Your task to perform on an android device: Open display settings Image 0: 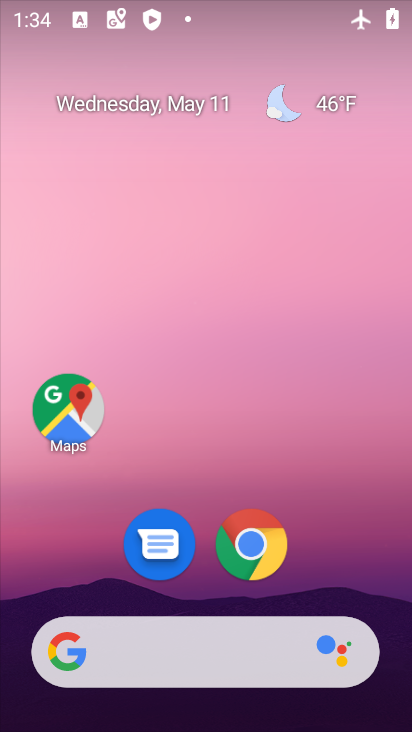
Step 0: drag from (395, 632) to (259, 104)
Your task to perform on an android device: Open display settings Image 1: 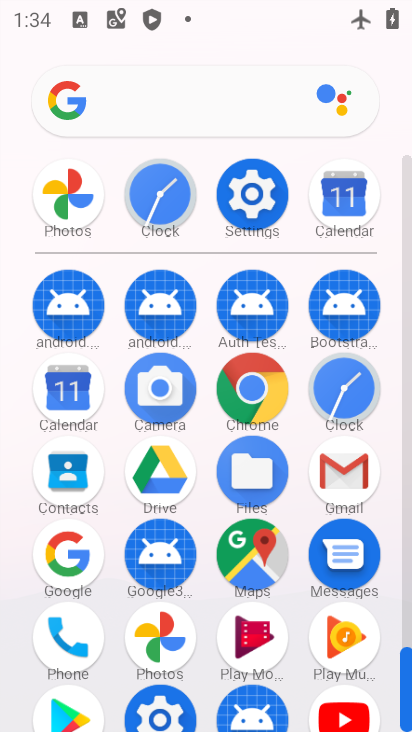
Step 1: click (405, 630)
Your task to perform on an android device: Open display settings Image 2: 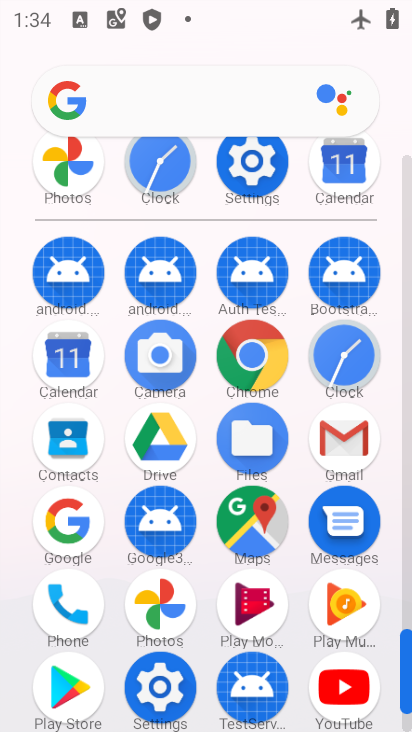
Step 2: click (163, 687)
Your task to perform on an android device: Open display settings Image 3: 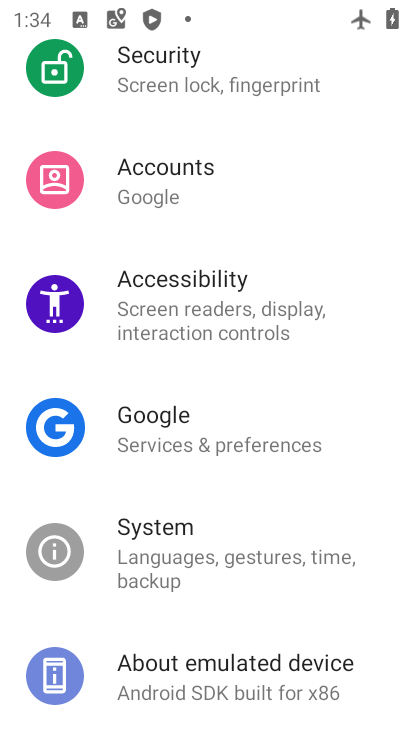
Step 3: drag from (348, 190) to (367, 528)
Your task to perform on an android device: Open display settings Image 4: 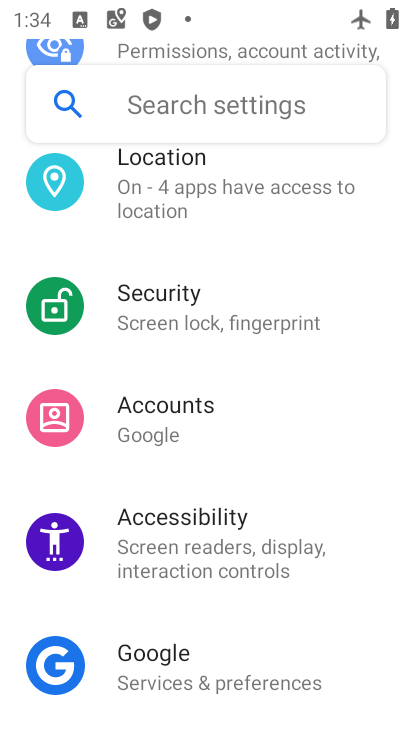
Step 4: drag from (359, 181) to (349, 486)
Your task to perform on an android device: Open display settings Image 5: 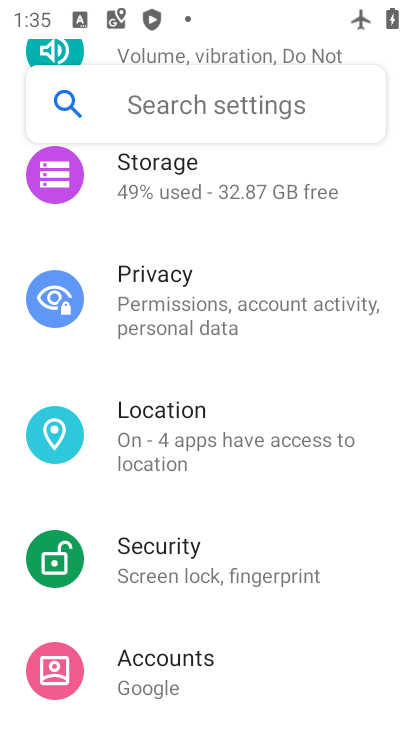
Step 5: drag from (360, 184) to (379, 471)
Your task to perform on an android device: Open display settings Image 6: 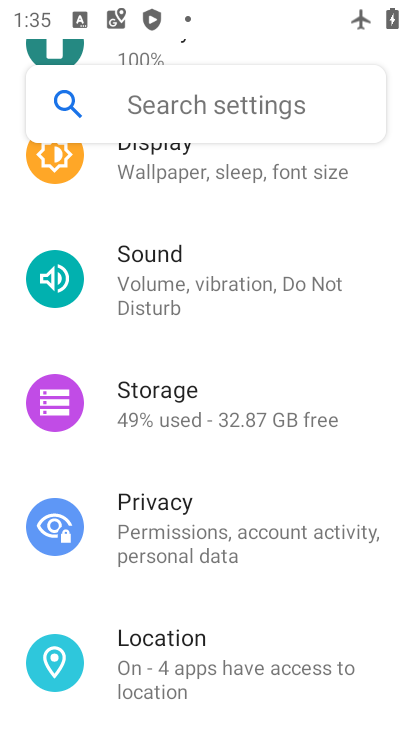
Step 6: drag from (369, 224) to (368, 492)
Your task to perform on an android device: Open display settings Image 7: 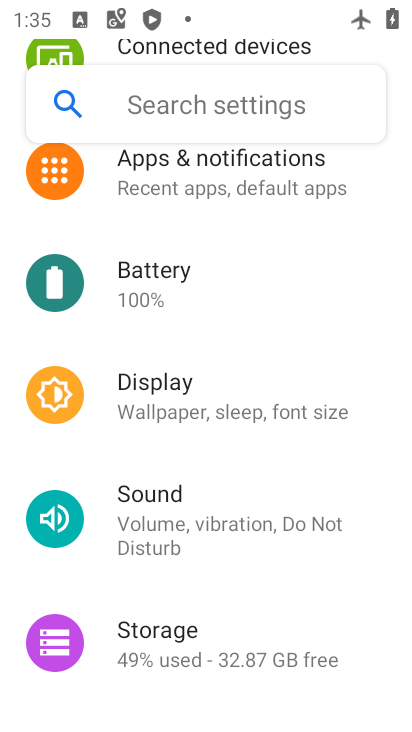
Step 7: click (127, 388)
Your task to perform on an android device: Open display settings Image 8: 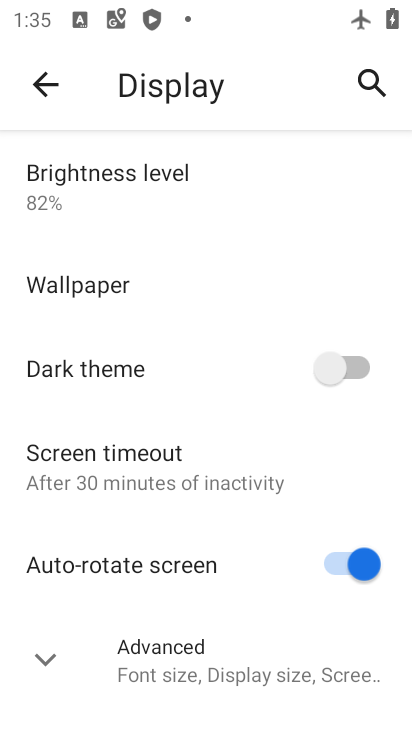
Step 8: click (42, 658)
Your task to perform on an android device: Open display settings Image 9: 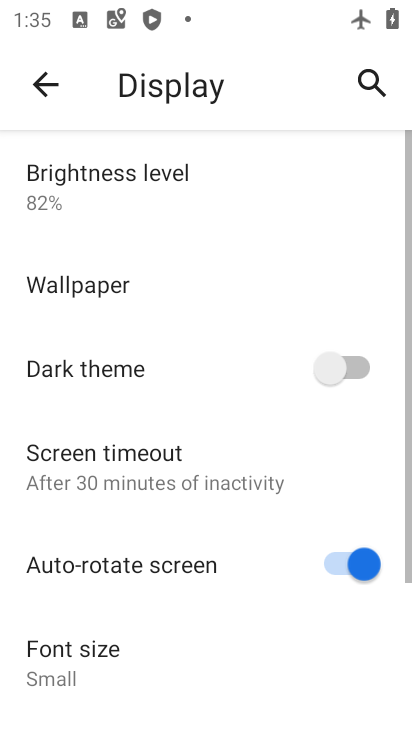
Step 9: task complete